Your task to perform on an android device: delete location history Image 0: 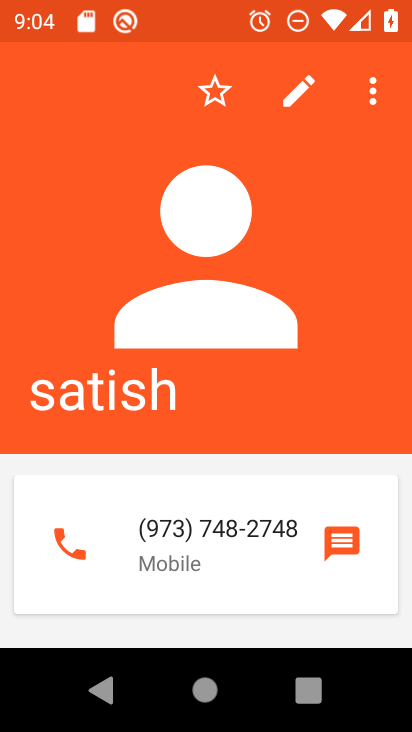
Step 0: press home button
Your task to perform on an android device: delete location history Image 1: 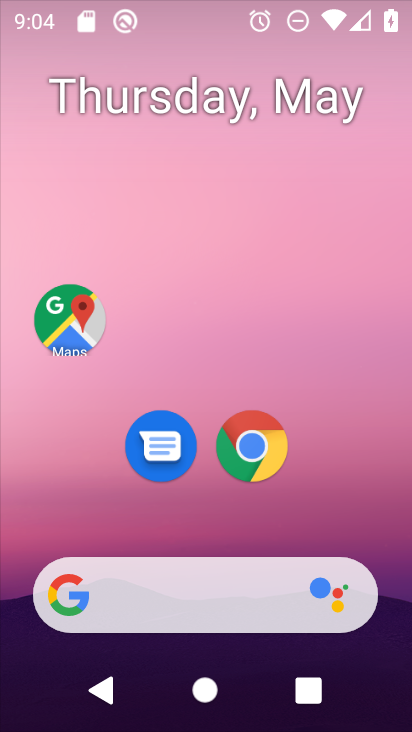
Step 1: drag from (335, 504) to (340, 176)
Your task to perform on an android device: delete location history Image 2: 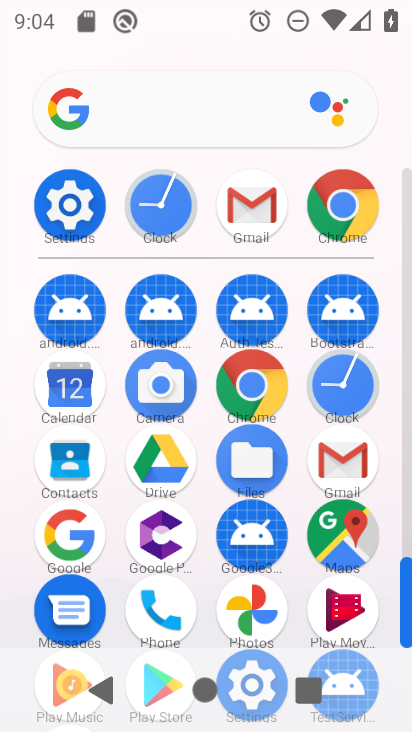
Step 2: click (33, 188)
Your task to perform on an android device: delete location history Image 3: 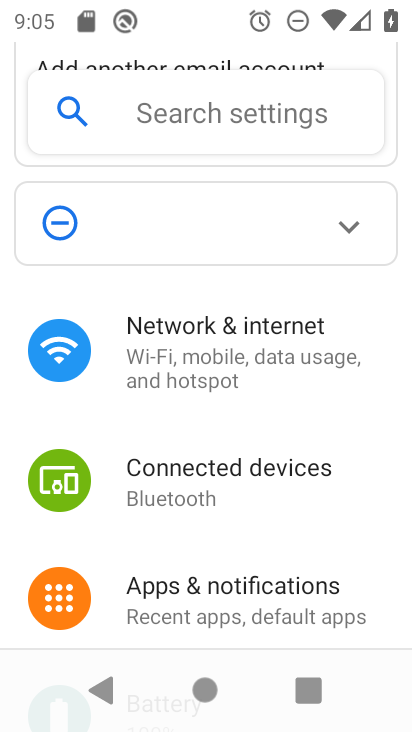
Step 3: drag from (288, 544) to (294, 306)
Your task to perform on an android device: delete location history Image 4: 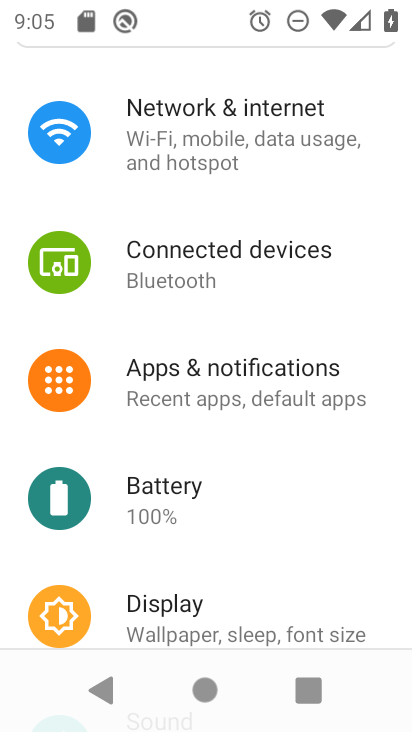
Step 4: drag from (301, 561) to (318, 254)
Your task to perform on an android device: delete location history Image 5: 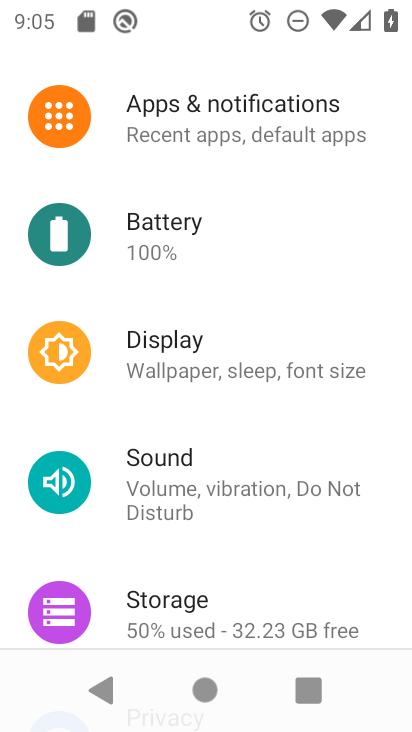
Step 5: drag from (314, 552) to (332, 241)
Your task to perform on an android device: delete location history Image 6: 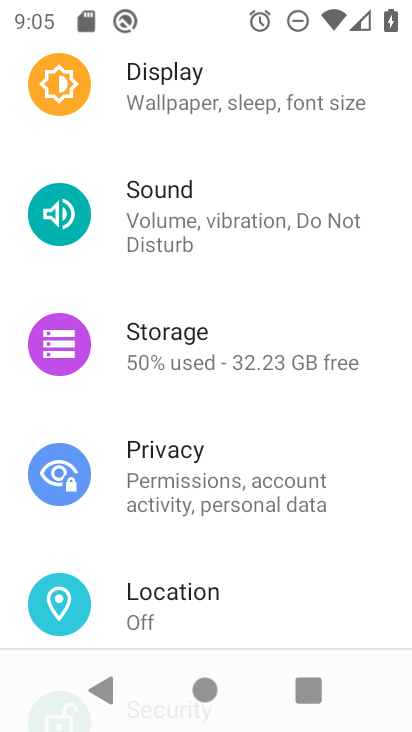
Step 6: click (178, 611)
Your task to perform on an android device: delete location history Image 7: 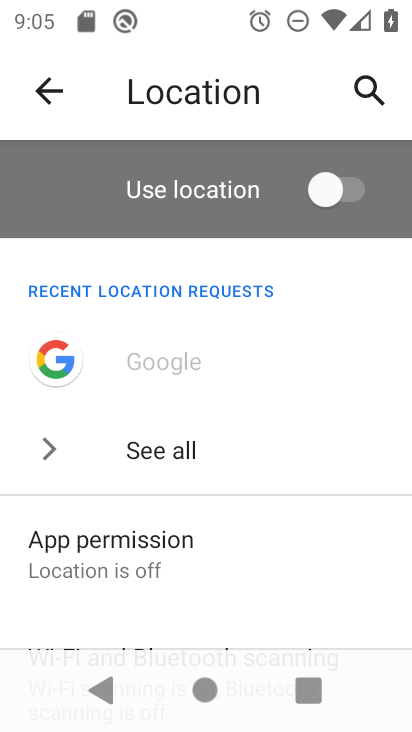
Step 7: drag from (245, 572) to (226, 263)
Your task to perform on an android device: delete location history Image 8: 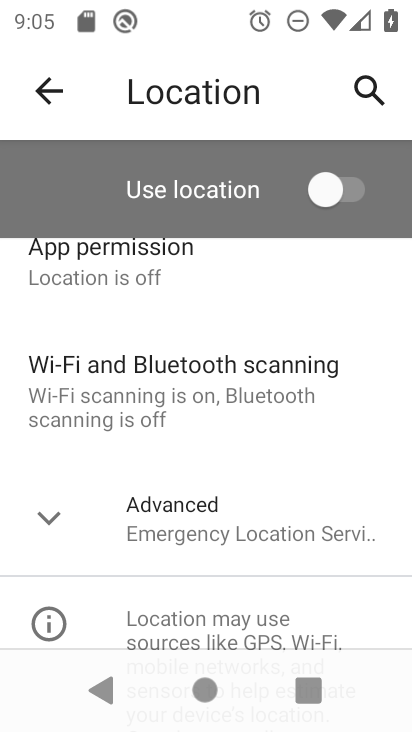
Step 8: click (272, 538)
Your task to perform on an android device: delete location history Image 9: 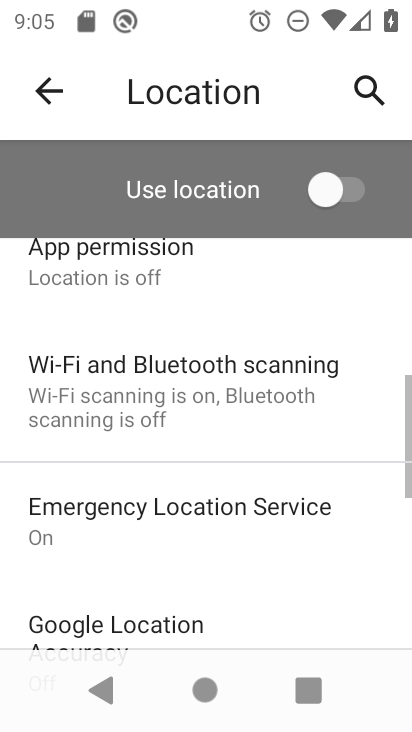
Step 9: drag from (274, 583) to (210, 261)
Your task to perform on an android device: delete location history Image 10: 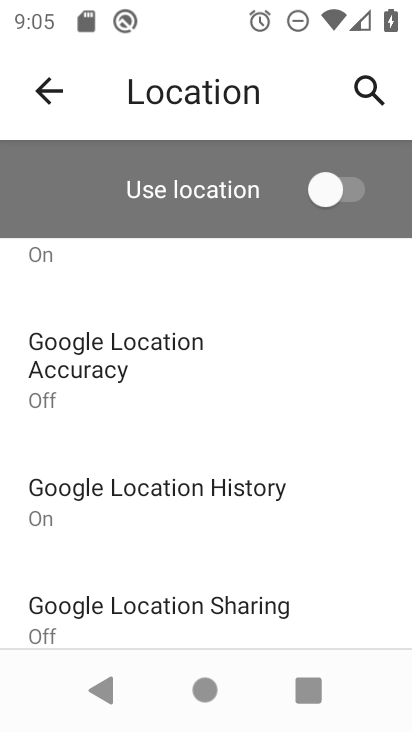
Step 10: click (243, 485)
Your task to perform on an android device: delete location history Image 11: 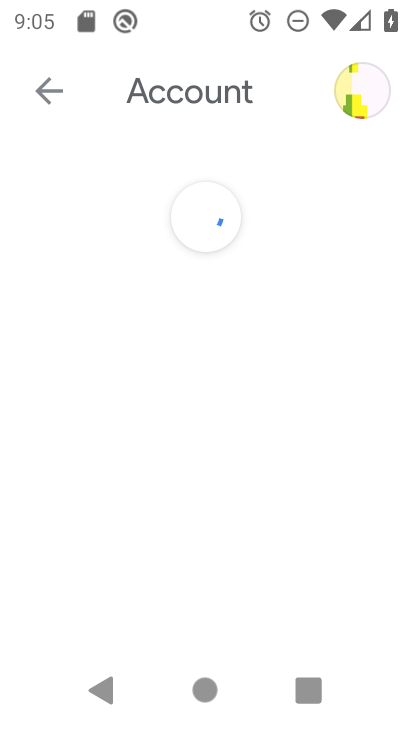
Step 11: drag from (195, 616) to (239, 194)
Your task to perform on an android device: delete location history Image 12: 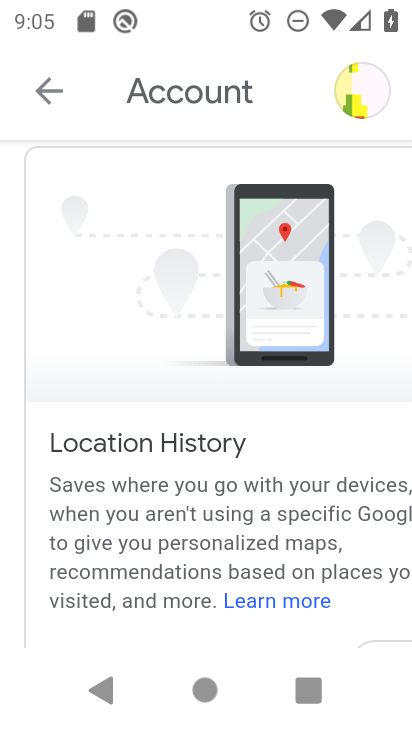
Step 12: drag from (222, 567) to (177, 163)
Your task to perform on an android device: delete location history Image 13: 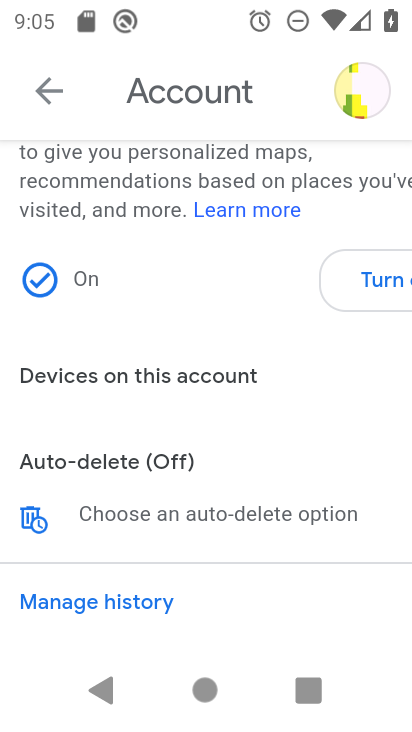
Step 13: click (161, 615)
Your task to perform on an android device: delete location history Image 14: 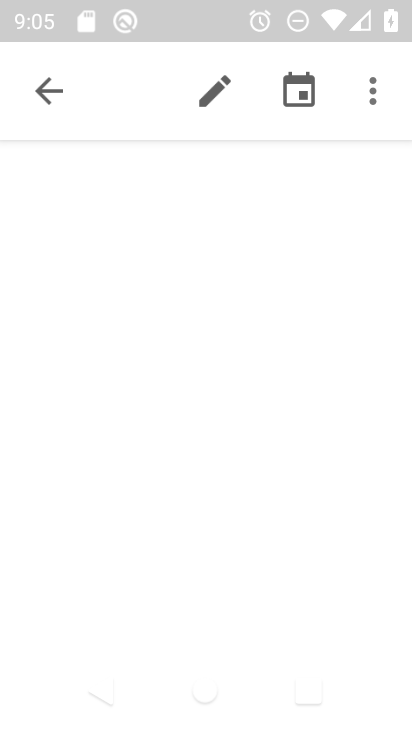
Step 14: click (367, 88)
Your task to perform on an android device: delete location history Image 15: 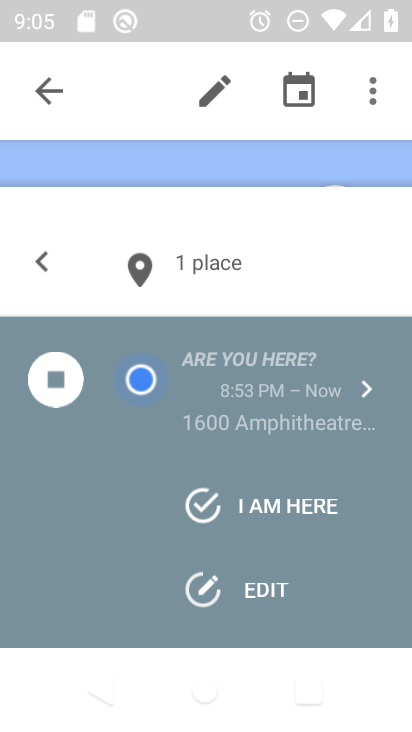
Step 15: click (369, 95)
Your task to perform on an android device: delete location history Image 16: 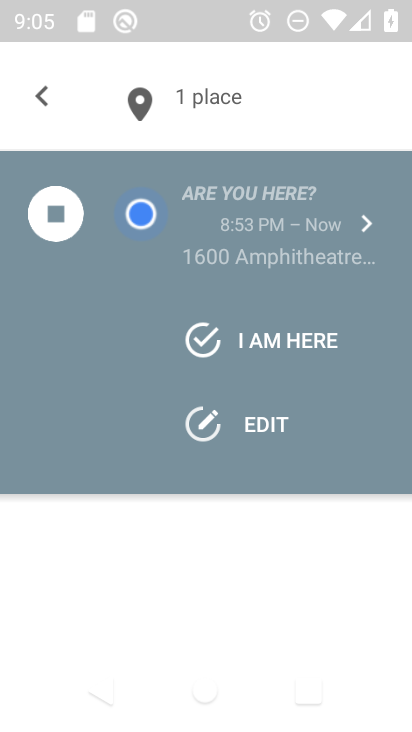
Step 16: click (339, 84)
Your task to perform on an android device: delete location history Image 17: 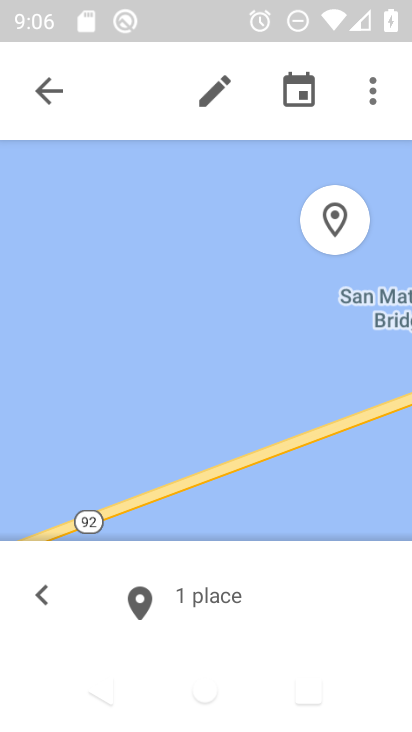
Step 17: click (365, 98)
Your task to perform on an android device: delete location history Image 18: 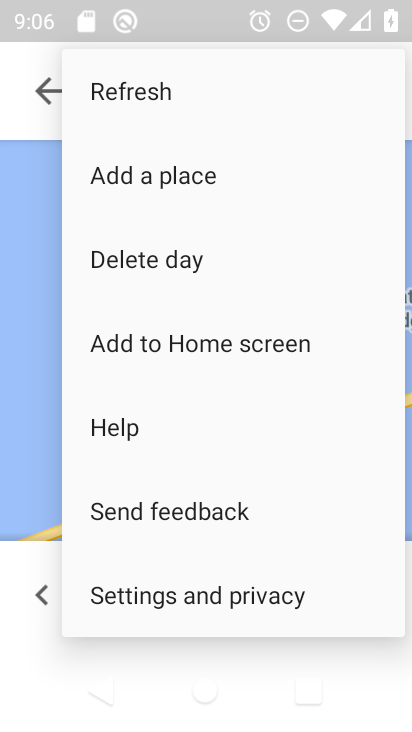
Step 18: click (189, 584)
Your task to perform on an android device: delete location history Image 19: 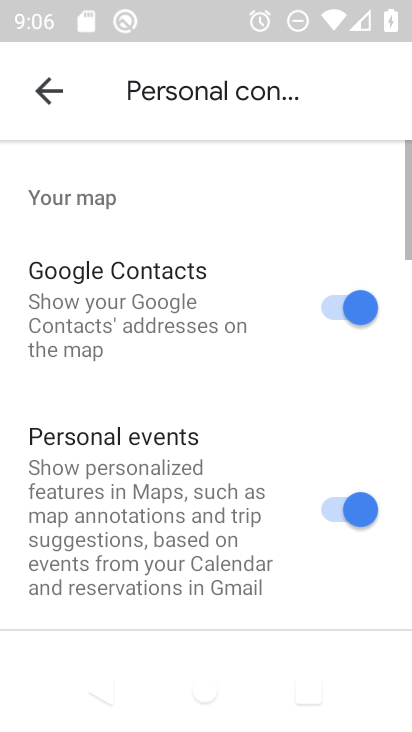
Step 19: drag from (191, 583) to (286, 177)
Your task to perform on an android device: delete location history Image 20: 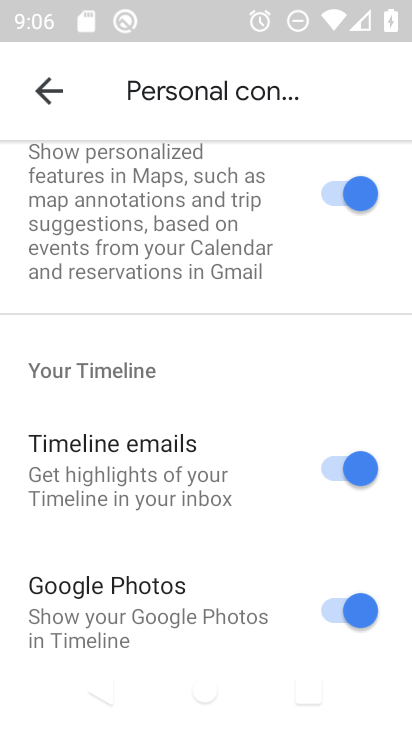
Step 20: drag from (233, 565) to (220, 54)
Your task to perform on an android device: delete location history Image 21: 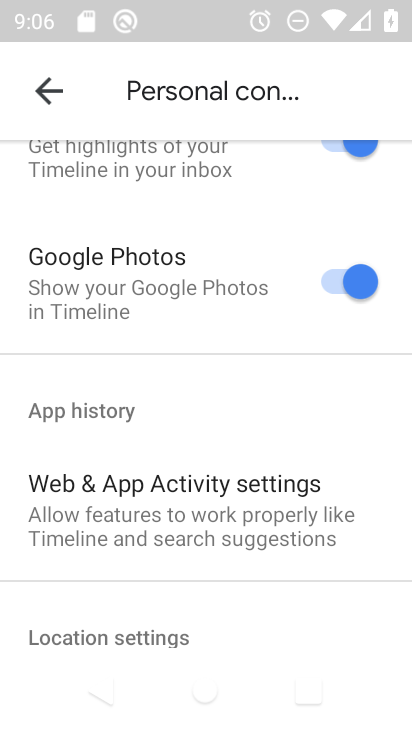
Step 21: drag from (189, 574) to (232, 161)
Your task to perform on an android device: delete location history Image 22: 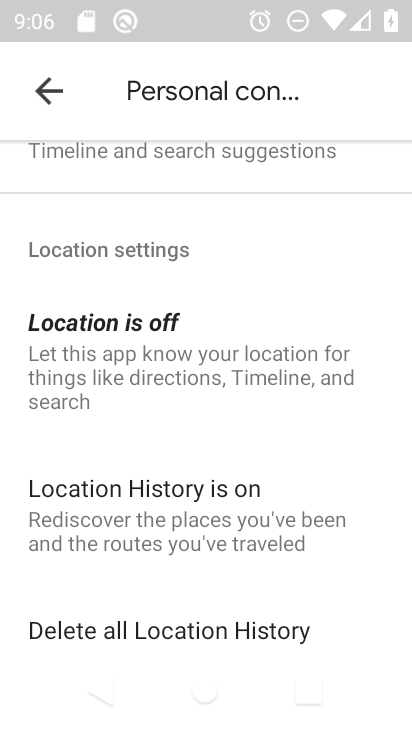
Step 22: click (170, 621)
Your task to perform on an android device: delete location history Image 23: 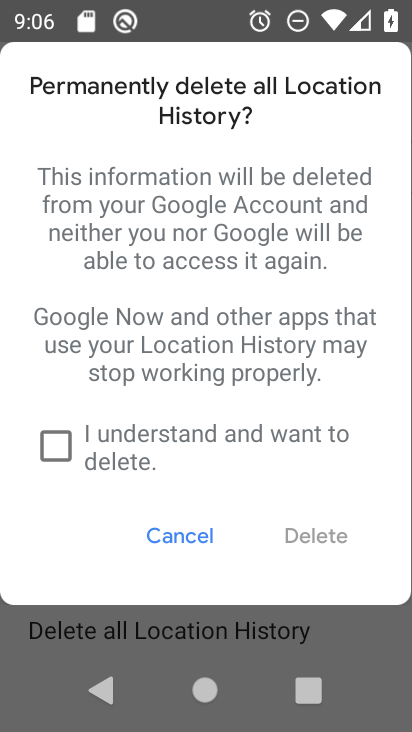
Step 23: click (65, 440)
Your task to perform on an android device: delete location history Image 24: 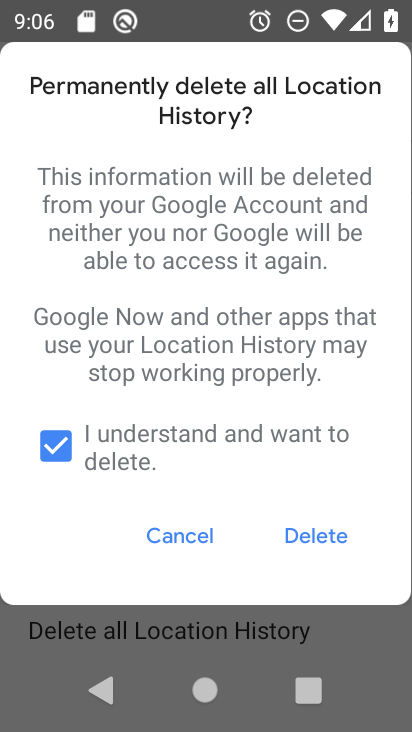
Step 24: click (306, 530)
Your task to perform on an android device: delete location history Image 25: 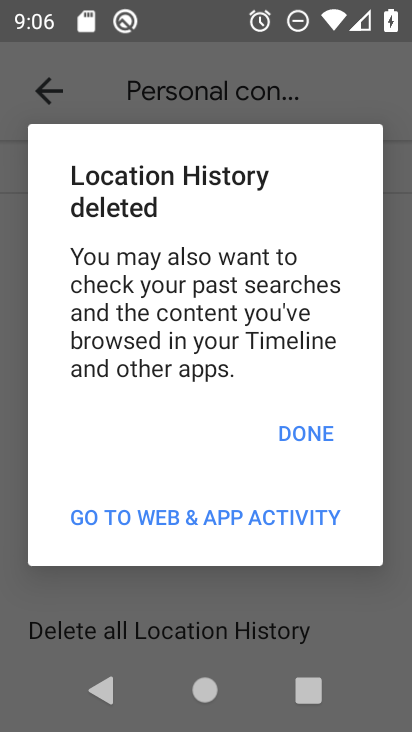
Step 25: click (300, 431)
Your task to perform on an android device: delete location history Image 26: 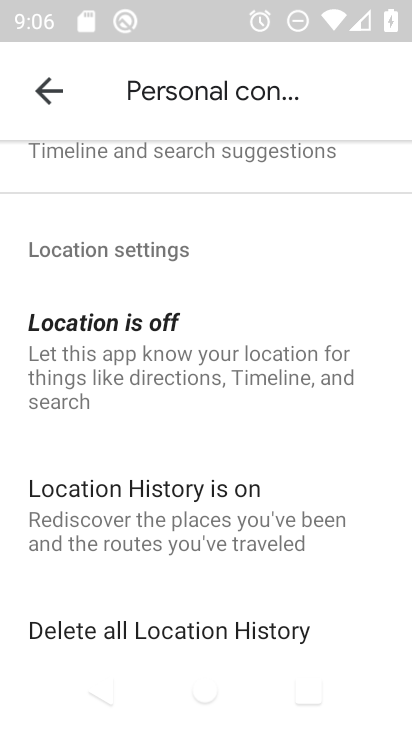
Step 26: task complete